Your task to perform on an android device: turn off priority inbox in the gmail app Image 0: 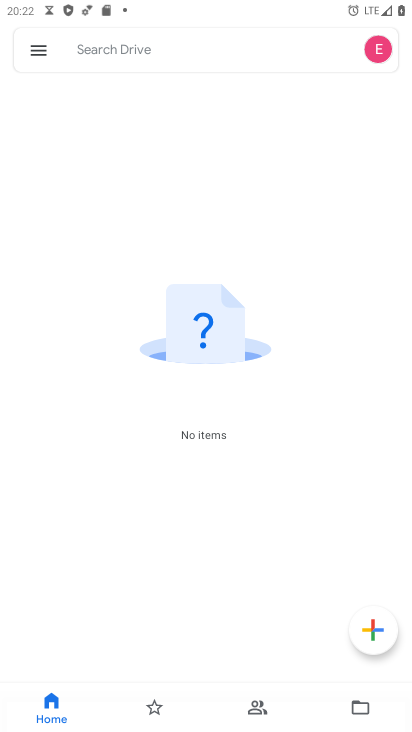
Step 0: press home button
Your task to perform on an android device: turn off priority inbox in the gmail app Image 1: 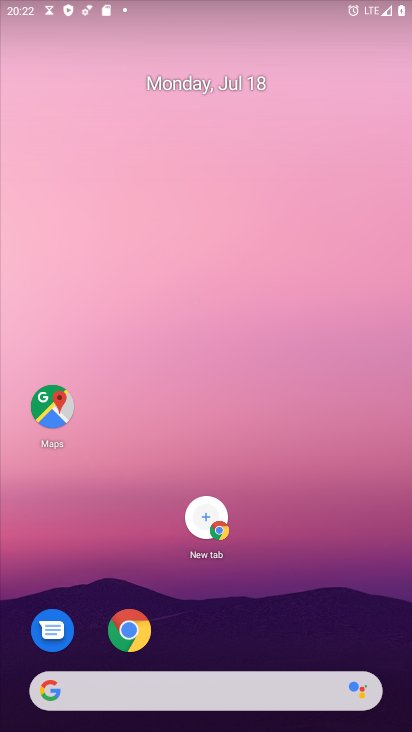
Step 1: drag from (166, 672) to (213, 322)
Your task to perform on an android device: turn off priority inbox in the gmail app Image 2: 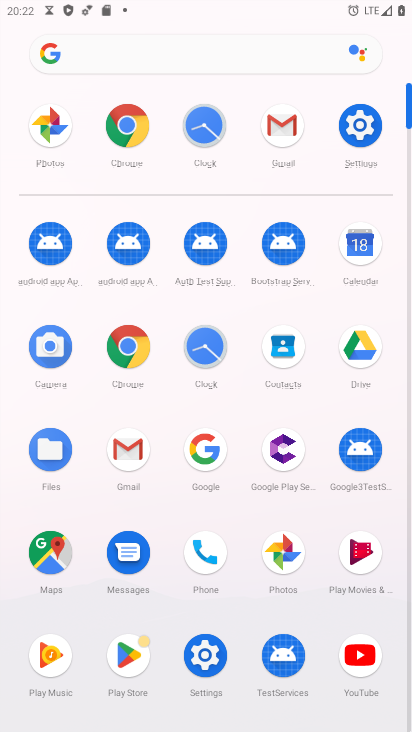
Step 2: click (283, 126)
Your task to perform on an android device: turn off priority inbox in the gmail app Image 3: 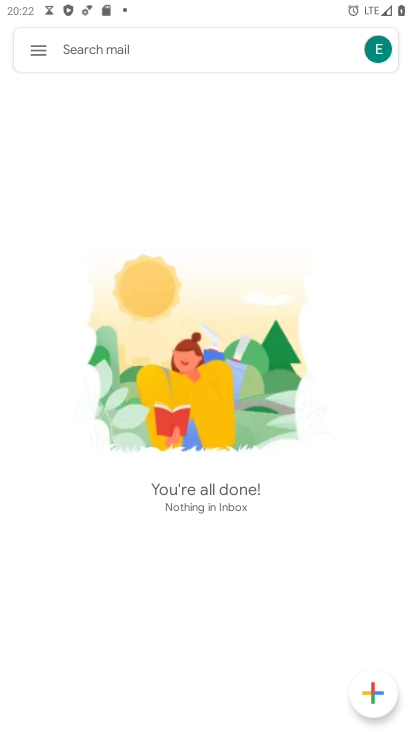
Step 3: click (37, 52)
Your task to perform on an android device: turn off priority inbox in the gmail app Image 4: 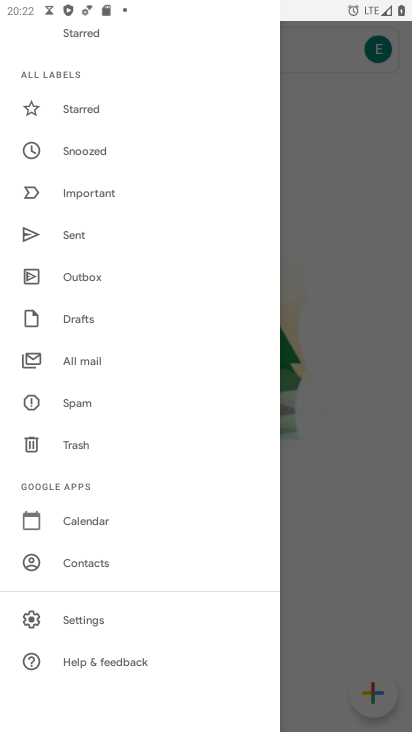
Step 4: click (80, 621)
Your task to perform on an android device: turn off priority inbox in the gmail app Image 5: 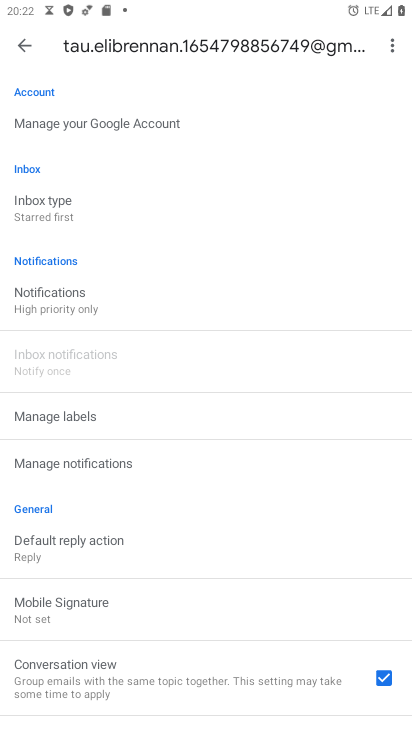
Step 5: click (37, 197)
Your task to perform on an android device: turn off priority inbox in the gmail app Image 6: 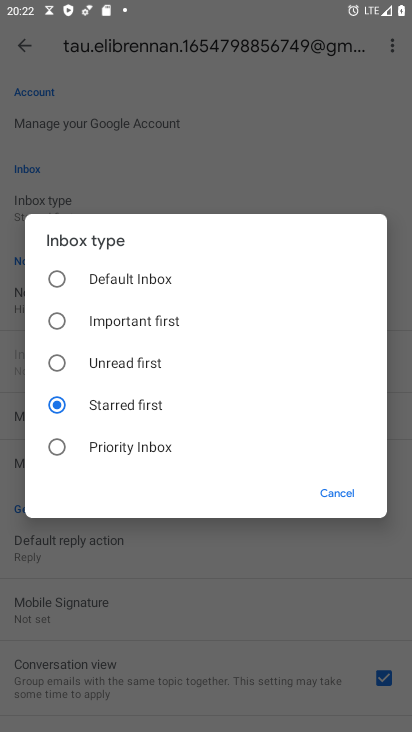
Step 6: click (345, 490)
Your task to perform on an android device: turn off priority inbox in the gmail app Image 7: 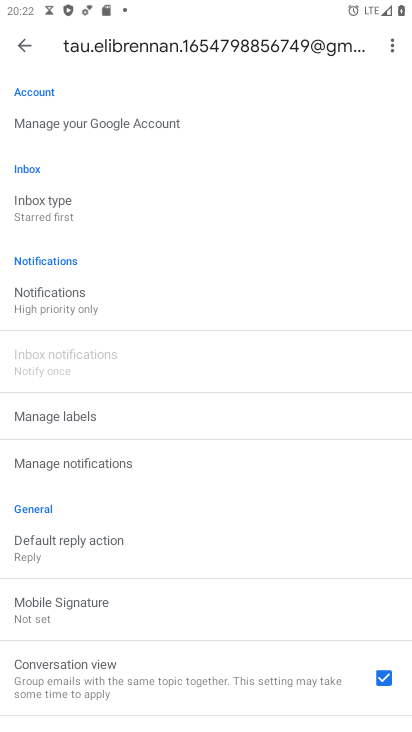
Step 7: task complete